Your task to perform on an android device: see sites visited before in the chrome app Image 0: 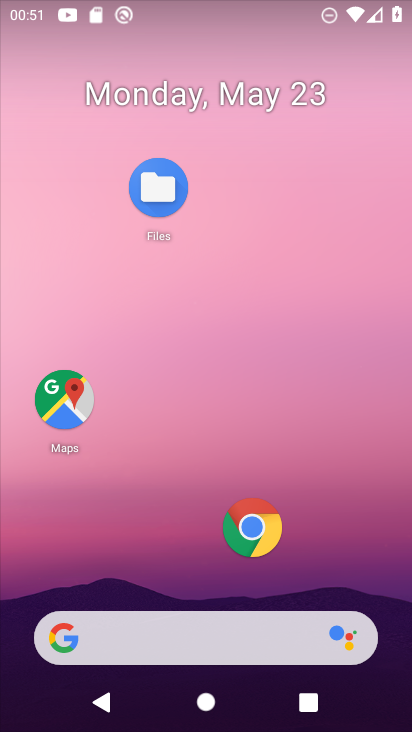
Step 0: click (257, 532)
Your task to perform on an android device: see sites visited before in the chrome app Image 1: 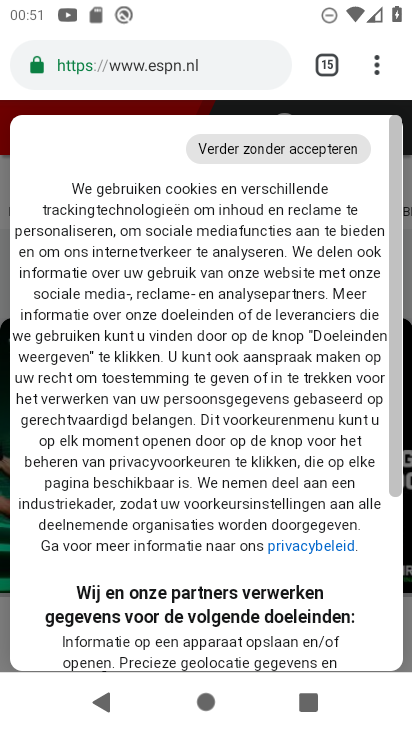
Step 1: click (373, 58)
Your task to perform on an android device: see sites visited before in the chrome app Image 2: 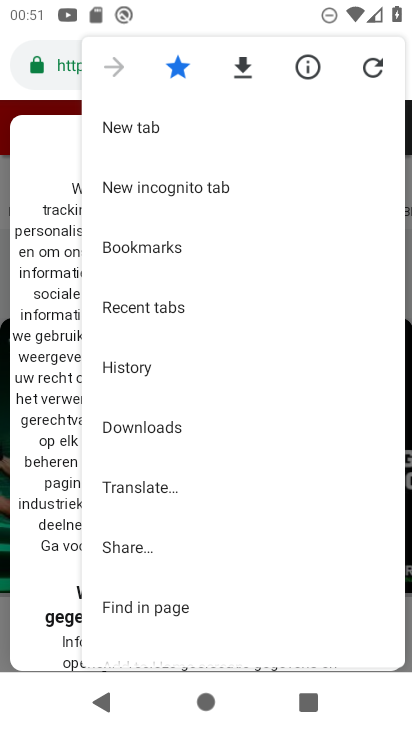
Step 2: click (130, 360)
Your task to perform on an android device: see sites visited before in the chrome app Image 3: 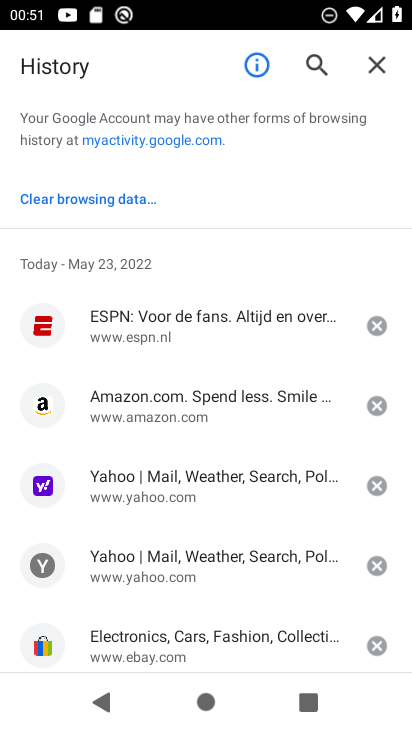
Step 3: task complete